Your task to perform on an android device: Open battery settings Image 0: 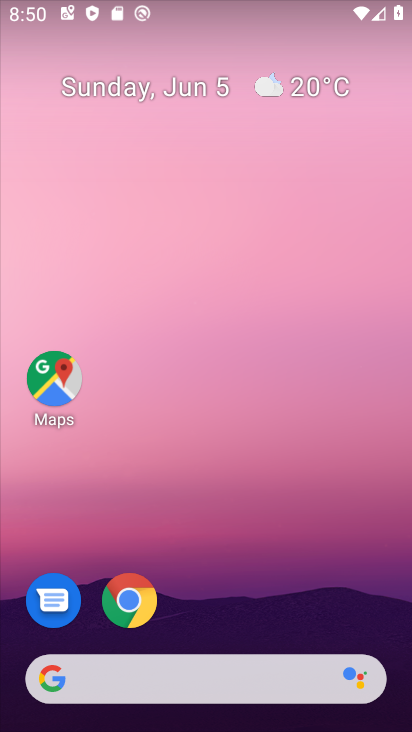
Step 0: drag from (213, 602) to (280, 0)
Your task to perform on an android device: Open battery settings Image 1: 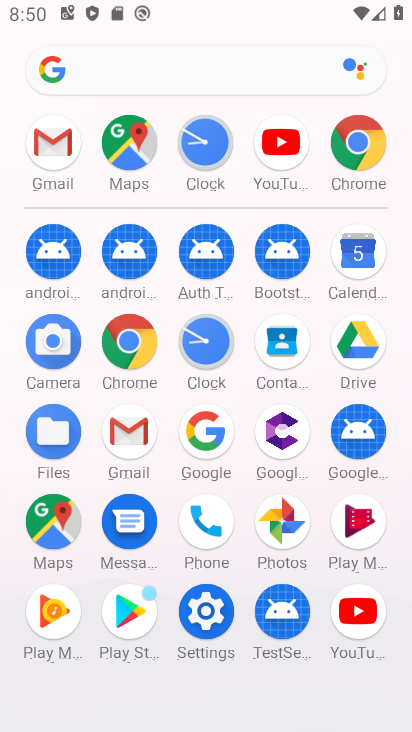
Step 1: click (218, 601)
Your task to perform on an android device: Open battery settings Image 2: 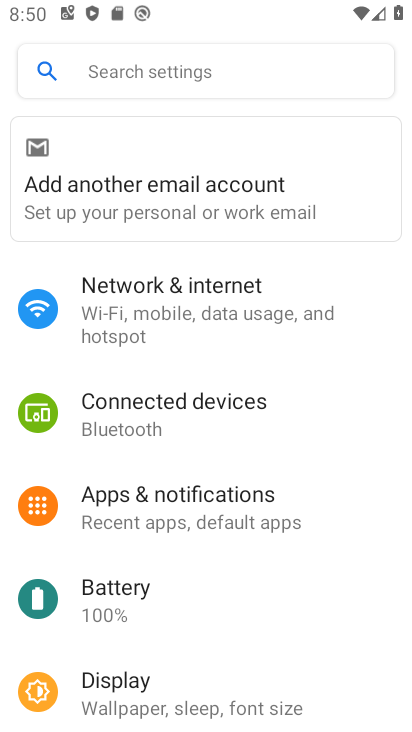
Step 2: click (207, 597)
Your task to perform on an android device: Open battery settings Image 3: 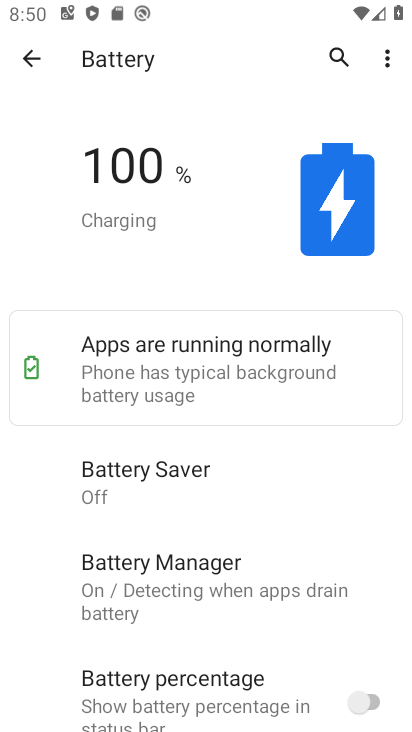
Step 3: task complete